Your task to perform on an android device: change text size in settings app Image 0: 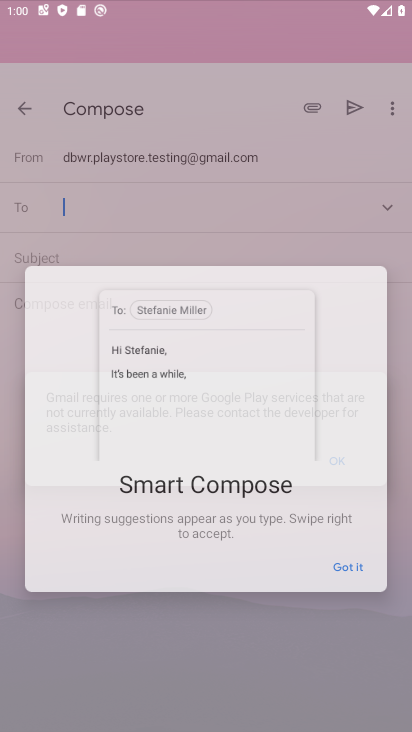
Step 0: drag from (185, 3) to (228, 48)
Your task to perform on an android device: change text size in settings app Image 1: 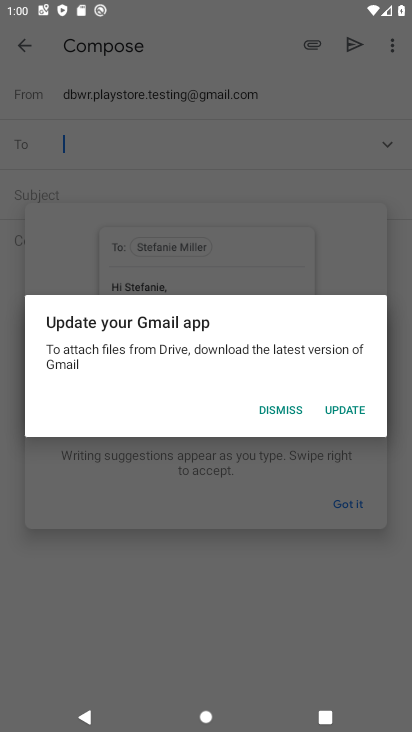
Step 1: drag from (260, 454) to (251, 14)
Your task to perform on an android device: change text size in settings app Image 2: 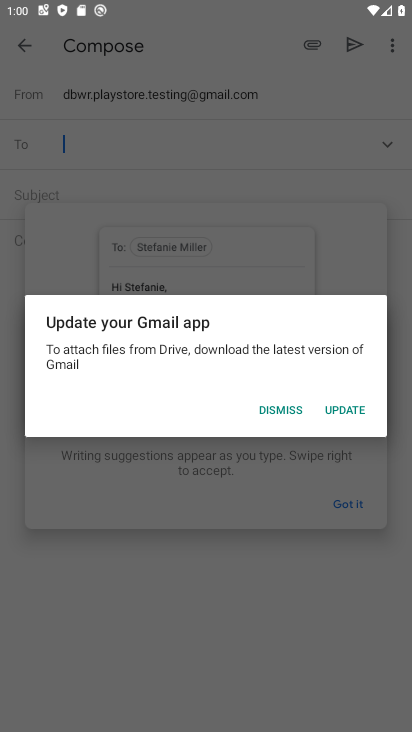
Step 2: click (284, 410)
Your task to perform on an android device: change text size in settings app Image 3: 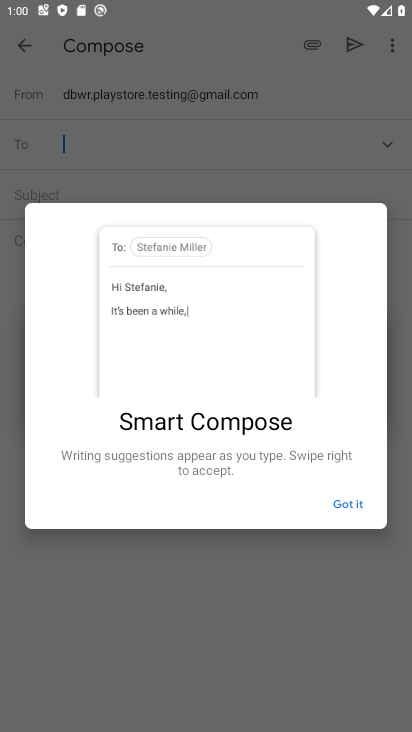
Step 3: click (346, 501)
Your task to perform on an android device: change text size in settings app Image 4: 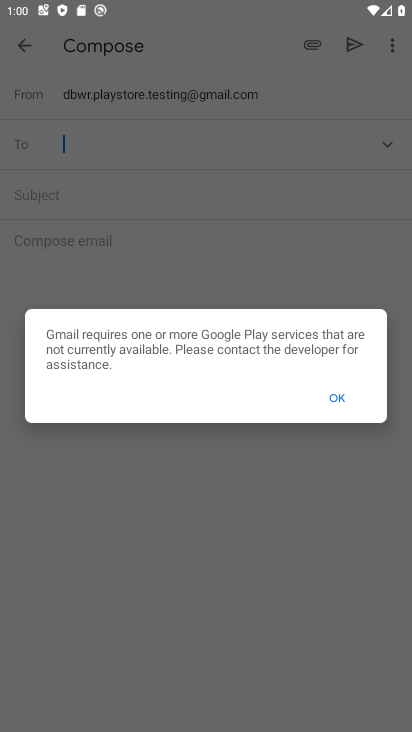
Step 4: click (341, 392)
Your task to perform on an android device: change text size in settings app Image 5: 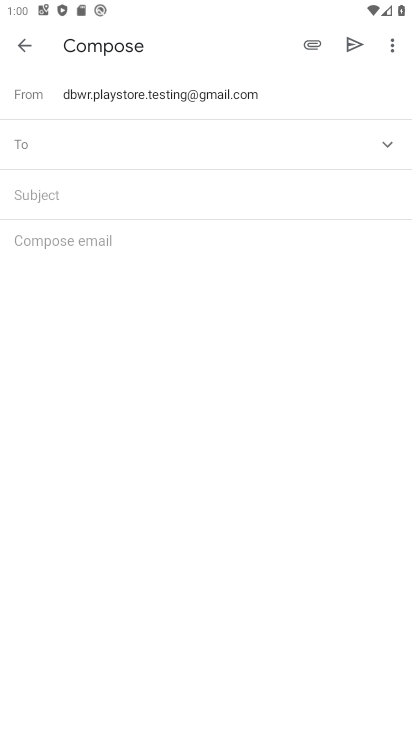
Step 5: click (12, 31)
Your task to perform on an android device: change text size in settings app Image 6: 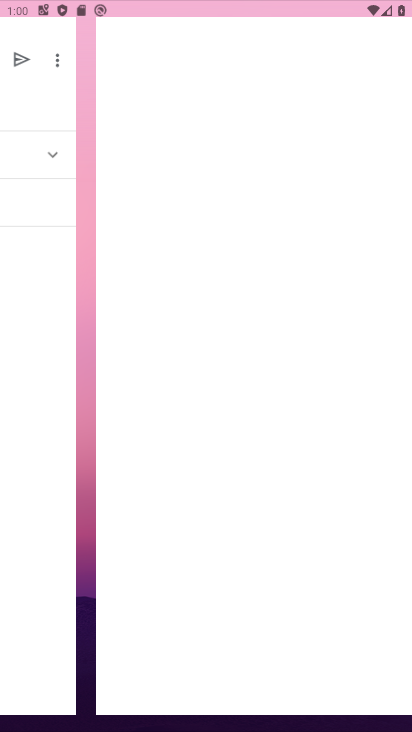
Step 6: click (18, 47)
Your task to perform on an android device: change text size in settings app Image 7: 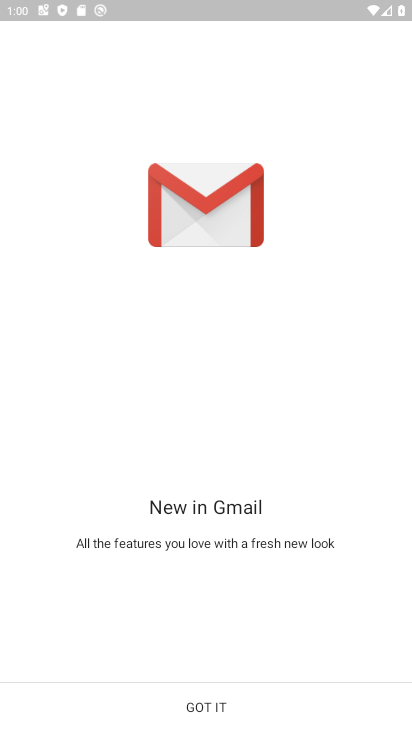
Step 7: click (206, 717)
Your task to perform on an android device: change text size in settings app Image 8: 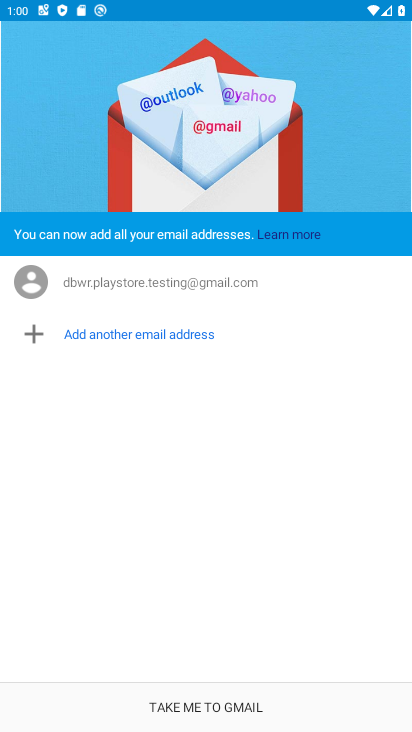
Step 8: click (221, 707)
Your task to perform on an android device: change text size in settings app Image 9: 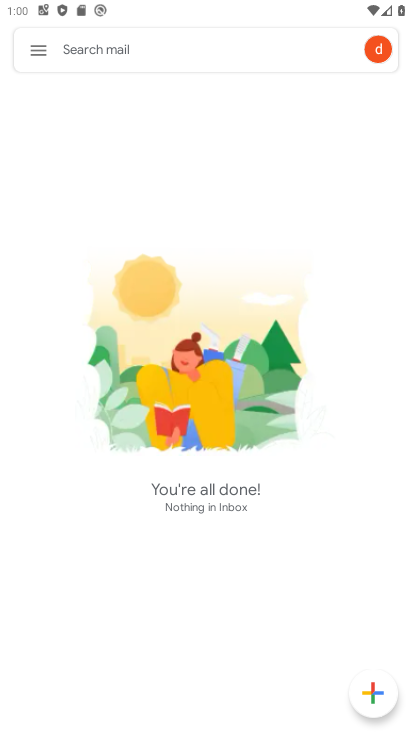
Step 9: press back button
Your task to perform on an android device: change text size in settings app Image 10: 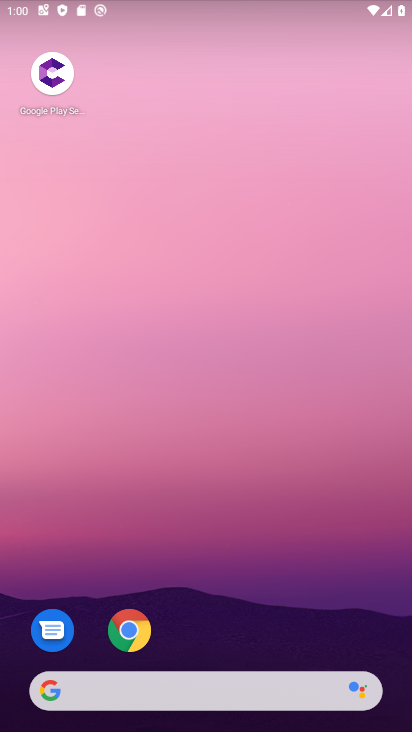
Step 10: drag from (222, 674) to (85, 109)
Your task to perform on an android device: change text size in settings app Image 11: 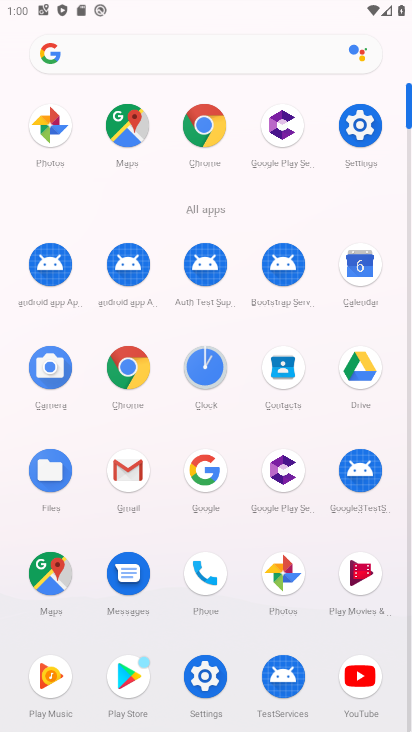
Step 11: click (347, 128)
Your task to perform on an android device: change text size in settings app Image 12: 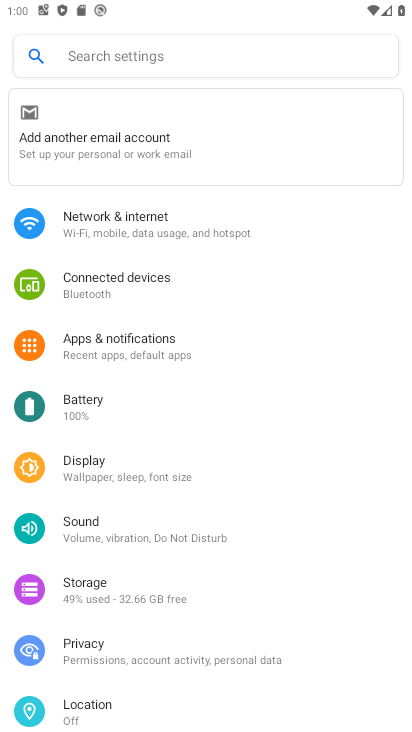
Step 12: click (88, 466)
Your task to perform on an android device: change text size in settings app Image 13: 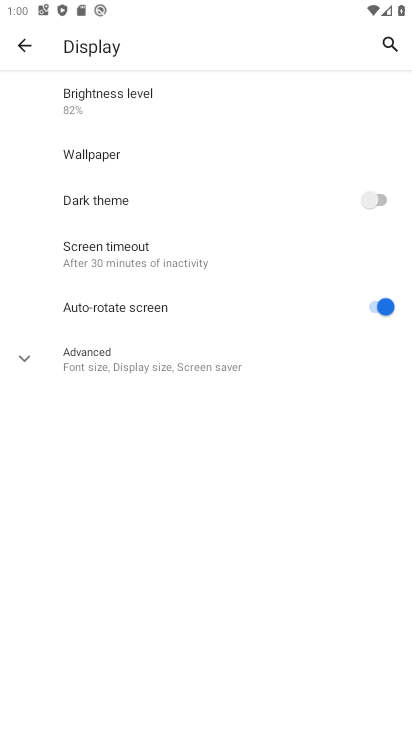
Step 13: click (101, 348)
Your task to perform on an android device: change text size in settings app Image 14: 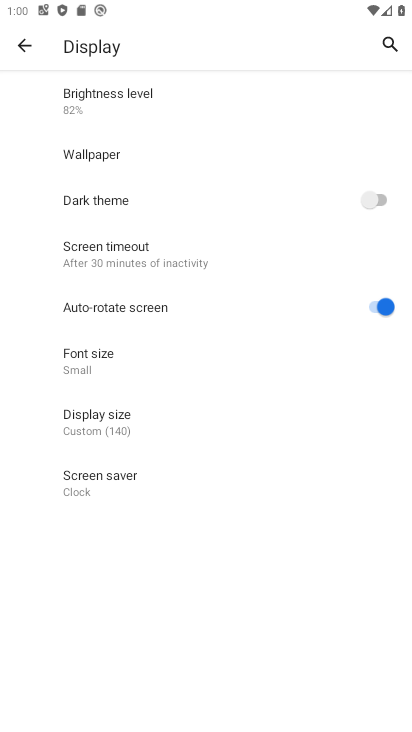
Step 14: click (83, 359)
Your task to perform on an android device: change text size in settings app Image 15: 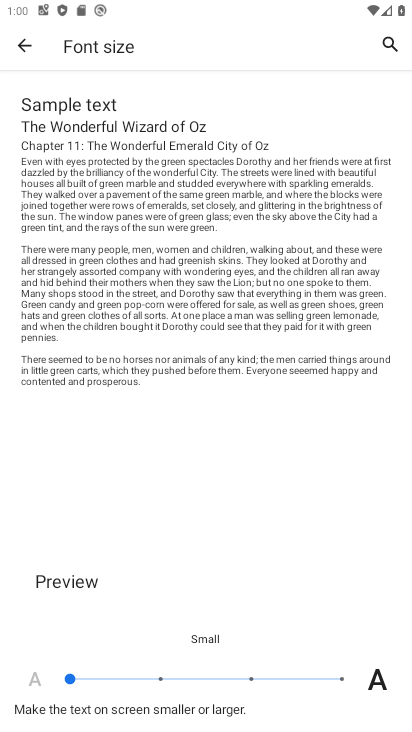
Step 15: click (157, 675)
Your task to perform on an android device: change text size in settings app Image 16: 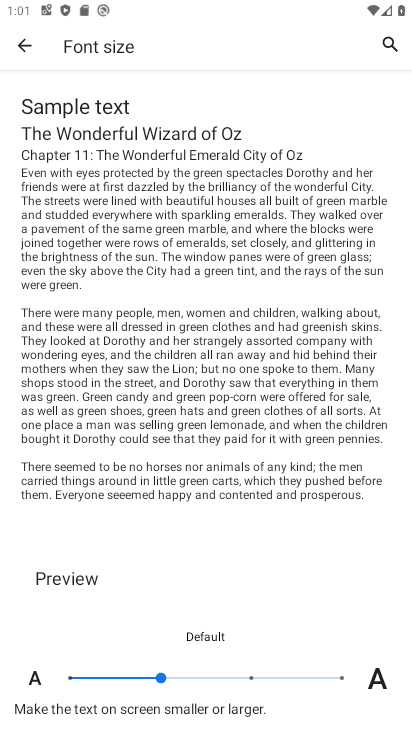
Step 16: task complete